Your task to perform on an android device: turn notification dots on Image 0: 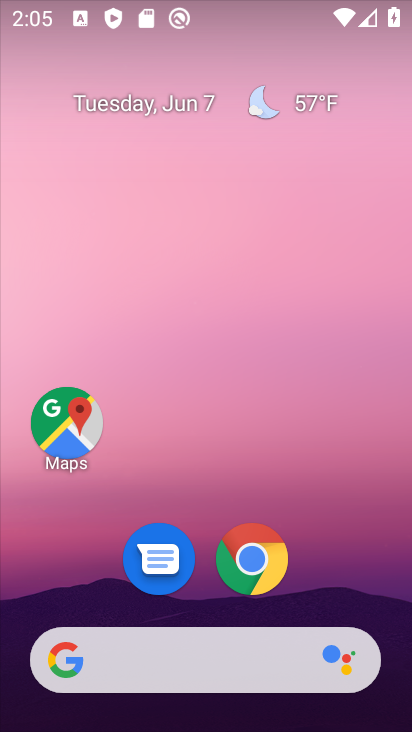
Step 0: drag from (20, 649) to (178, 212)
Your task to perform on an android device: turn notification dots on Image 1: 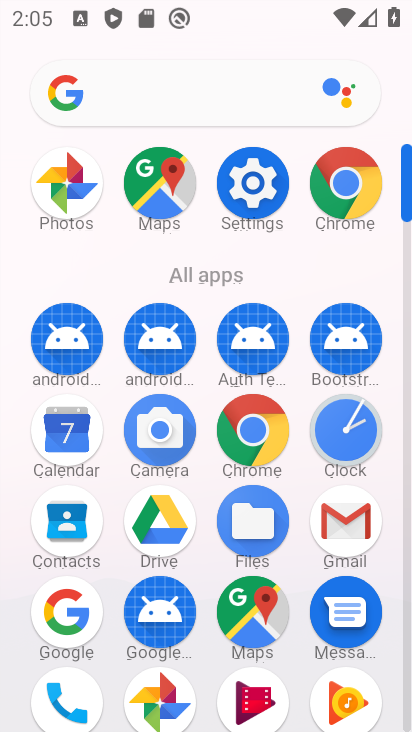
Step 1: click (254, 172)
Your task to perform on an android device: turn notification dots on Image 2: 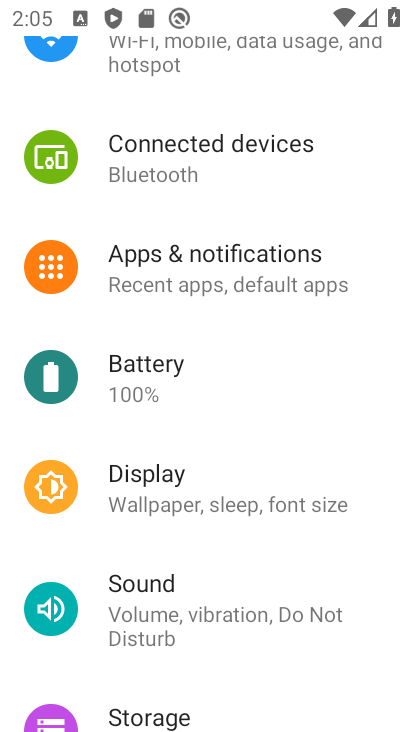
Step 2: click (258, 266)
Your task to perform on an android device: turn notification dots on Image 3: 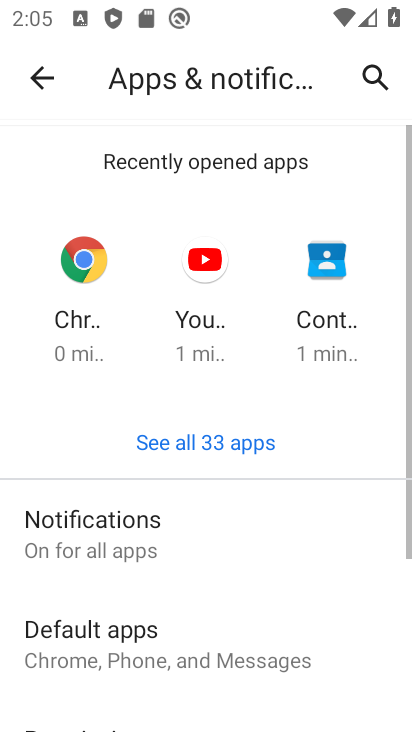
Step 3: click (169, 549)
Your task to perform on an android device: turn notification dots on Image 4: 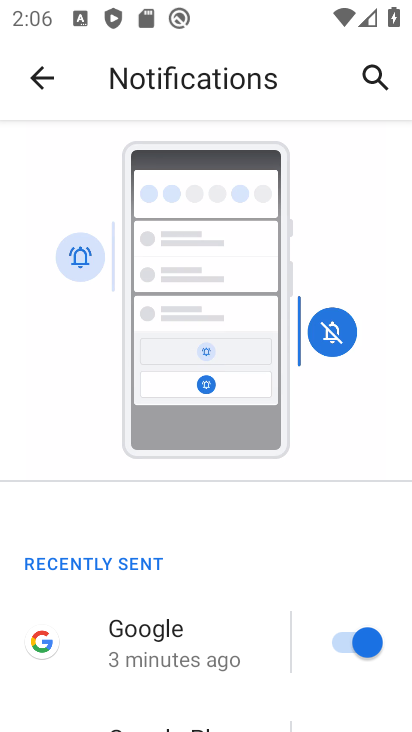
Step 4: drag from (14, 568) to (252, 143)
Your task to perform on an android device: turn notification dots on Image 5: 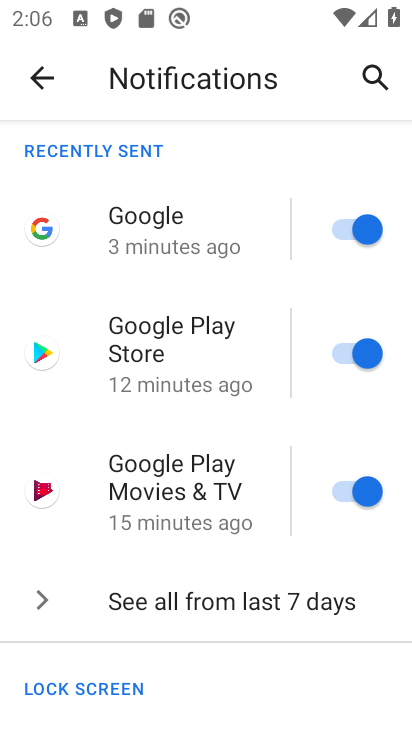
Step 5: drag from (17, 550) to (194, 152)
Your task to perform on an android device: turn notification dots on Image 6: 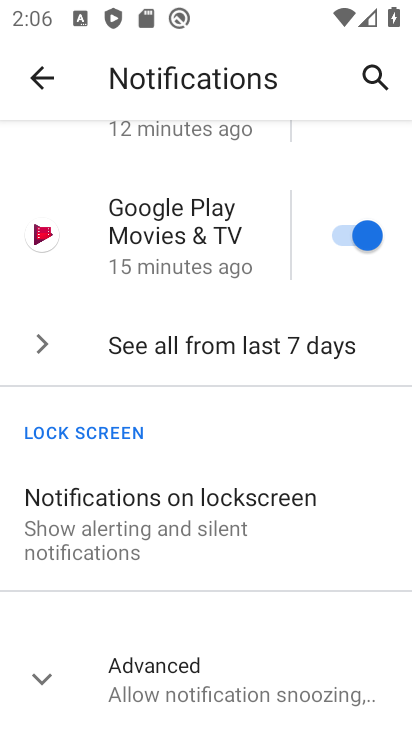
Step 6: click (208, 675)
Your task to perform on an android device: turn notification dots on Image 7: 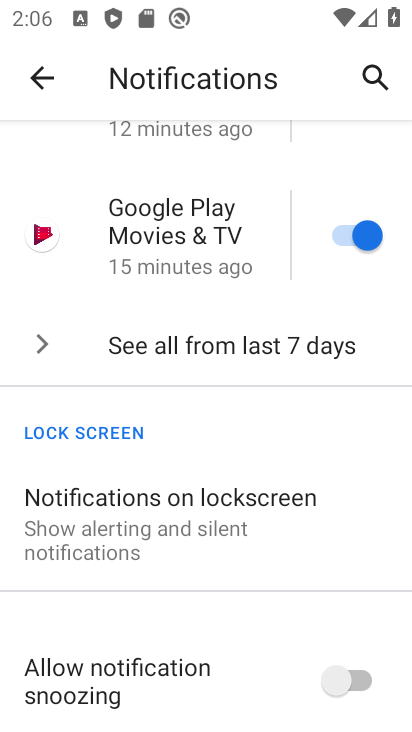
Step 7: task complete